Your task to perform on an android device: Clear the cart on target. Image 0: 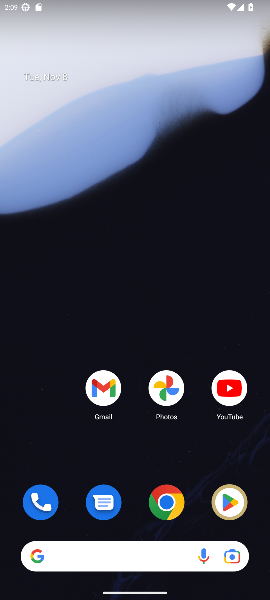
Step 0: drag from (66, 520) to (93, 156)
Your task to perform on an android device: Clear the cart on target. Image 1: 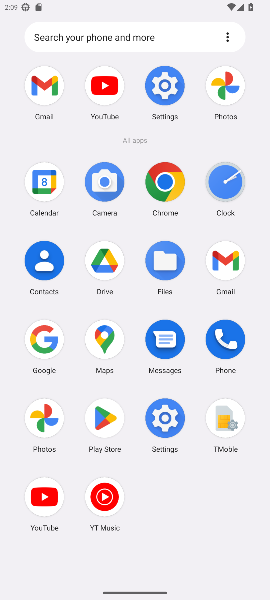
Step 1: click (45, 335)
Your task to perform on an android device: Clear the cart on target. Image 2: 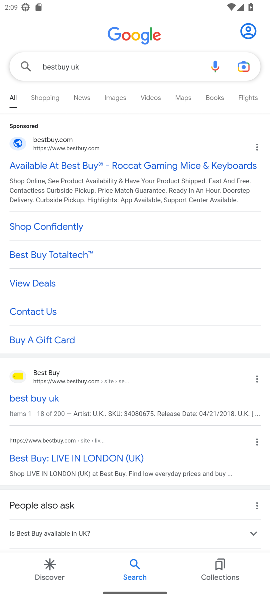
Step 2: click (125, 60)
Your task to perform on an android device: Clear the cart on target. Image 3: 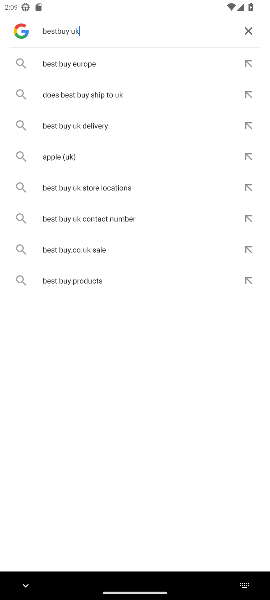
Step 3: click (250, 32)
Your task to perform on an android device: Clear the cart on target. Image 4: 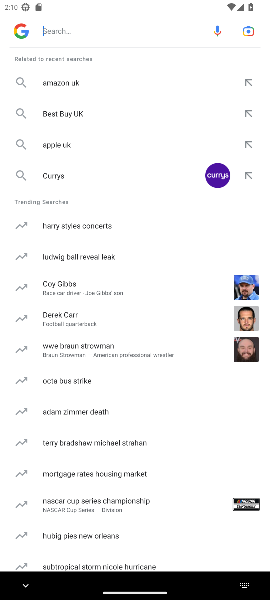
Step 4: click (94, 25)
Your task to perform on an android device: Clear the cart on target. Image 5: 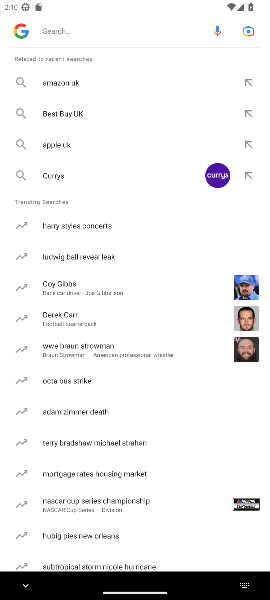
Step 5: type "target "
Your task to perform on an android device: Clear the cart on target. Image 6: 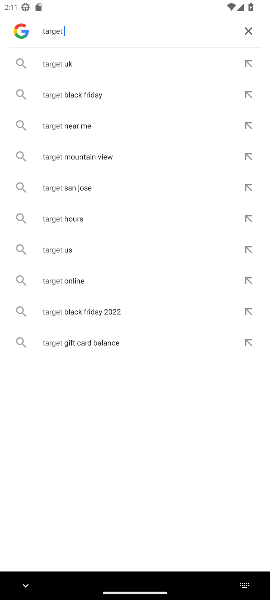
Step 6: click (61, 62)
Your task to perform on an android device: Clear the cart on target. Image 7: 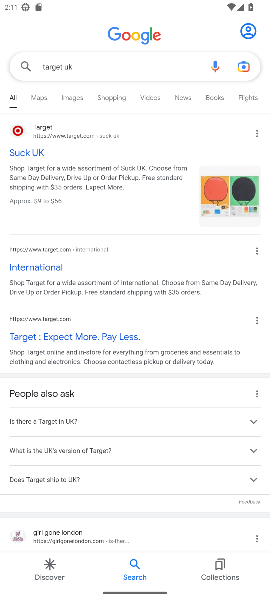
Step 7: click (20, 127)
Your task to perform on an android device: Clear the cart on target. Image 8: 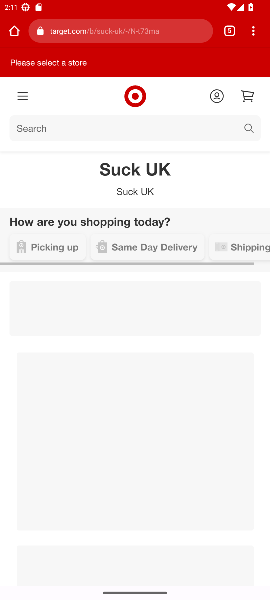
Step 8: click (244, 91)
Your task to perform on an android device: Clear the cart on target. Image 9: 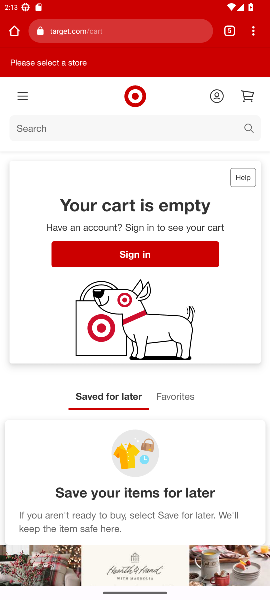
Step 9: task complete